Your task to perform on an android device: turn off priority inbox in the gmail app Image 0: 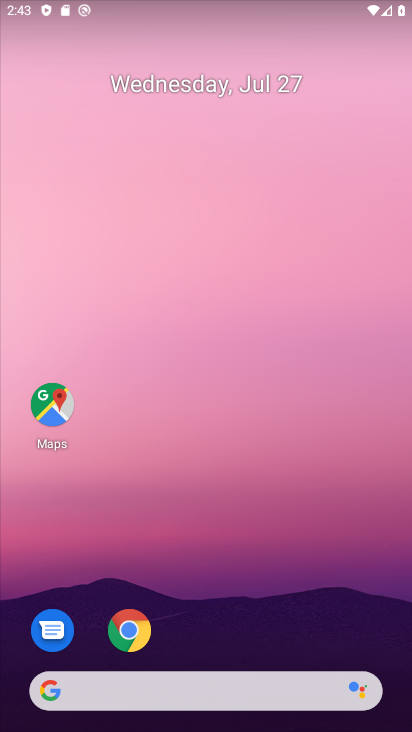
Step 0: drag from (316, 658) to (221, 86)
Your task to perform on an android device: turn off priority inbox in the gmail app Image 1: 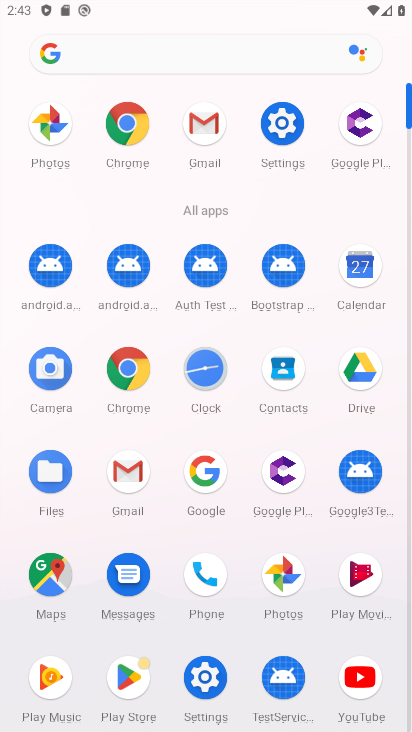
Step 1: click (131, 467)
Your task to perform on an android device: turn off priority inbox in the gmail app Image 2: 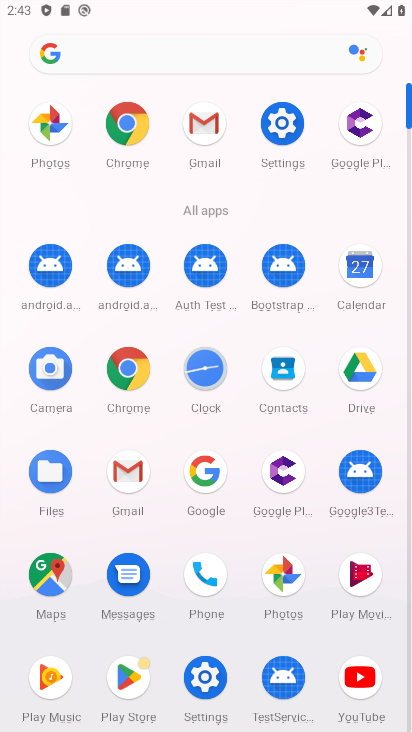
Step 2: click (133, 466)
Your task to perform on an android device: turn off priority inbox in the gmail app Image 3: 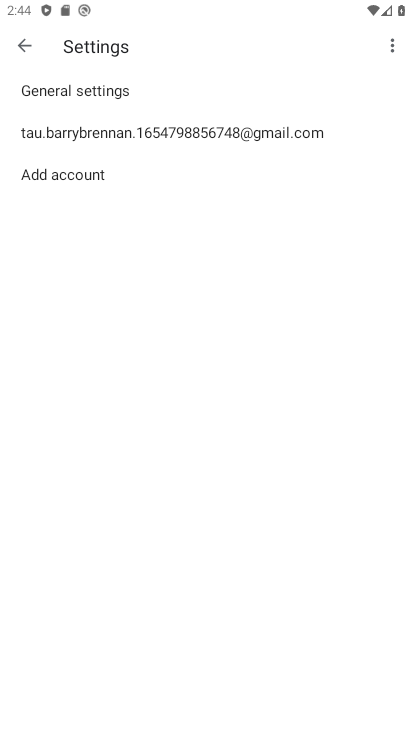
Step 3: click (70, 128)
Your task to perform on an android device: turn off priority inbox in the gmail app Image 4: 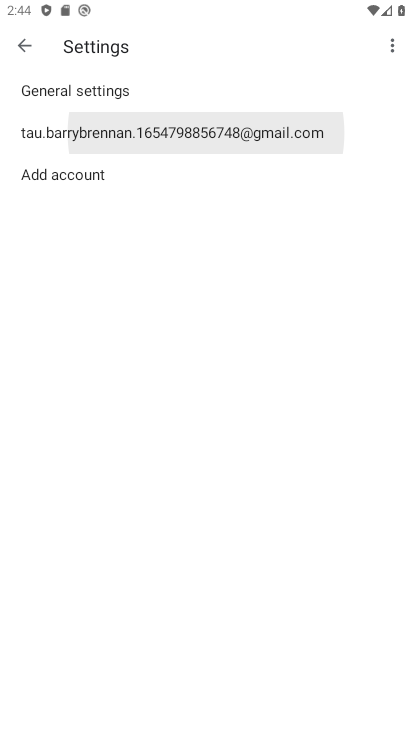
Step 4: click (70, 130)
Your task to perform on an android device: turn off priority inbox in the gmail app Image 5: 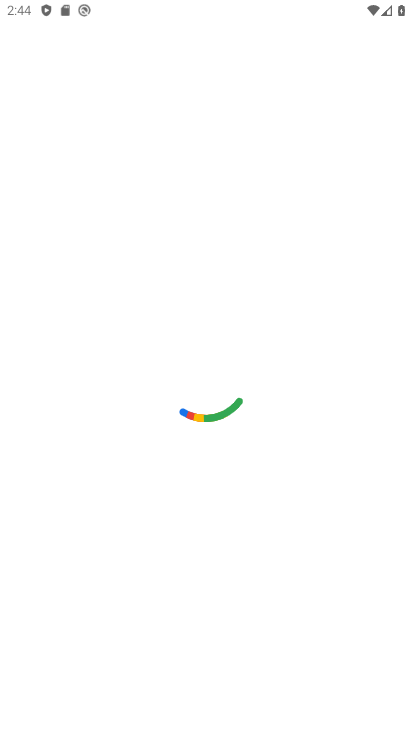
Step 5: press back button
Your task to perform on an android device: turn off priority inbox in the gmail app Image 6: 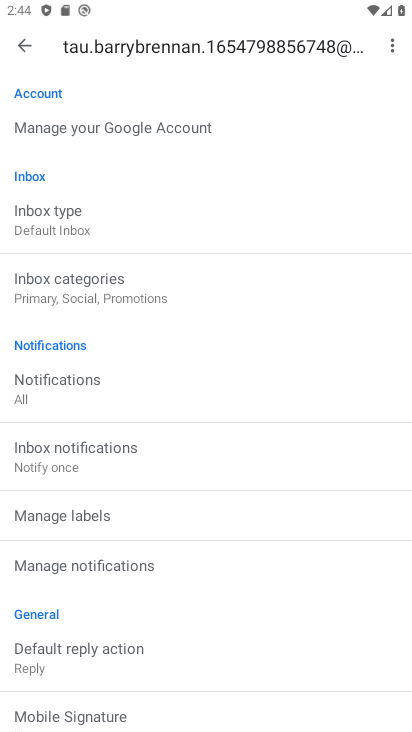
Step 6: click (44, 223)
Your task to perform on an android device: turn off priority inbox in the gmail app Image 7: 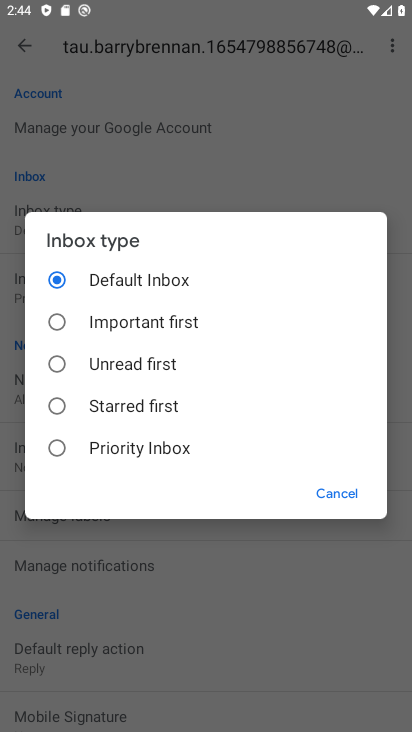
Step 7: task complete